Your task to perform on an android device: see sites visited before in the chrome app Image 0: 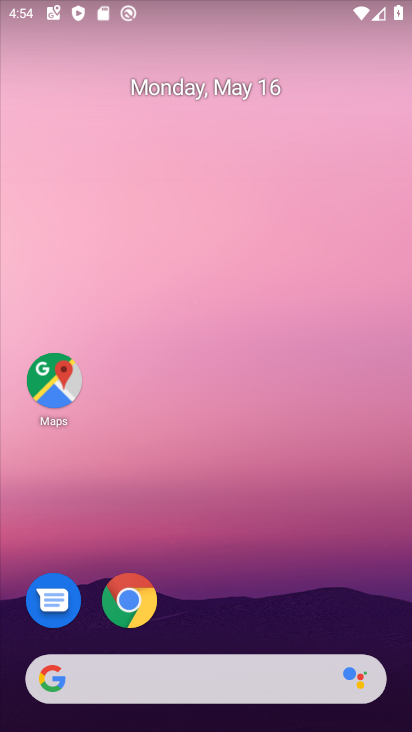
Step 0: drag from (222, 636) to (197, 45)
Your task to perform on an android device: see sites visited before in the chrome app Image 1: 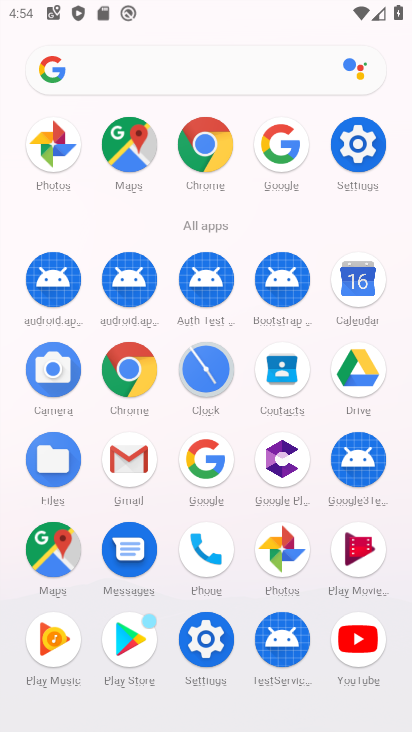
Step 1: click (198, 146)
Your task to perform on an android device: see sites visited before in the chrome app Image 2: 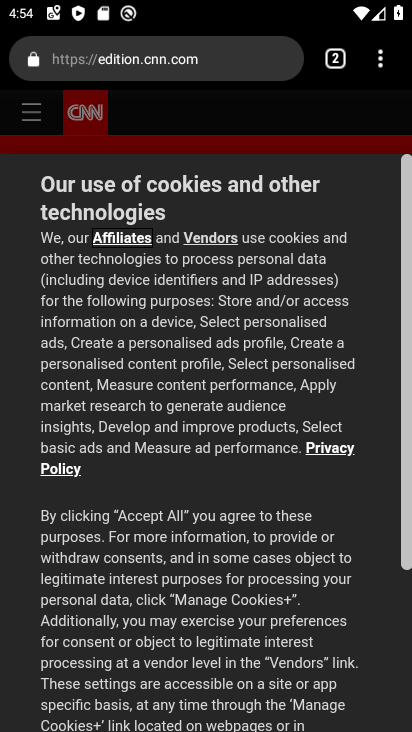
Step 2: click (387, 62)
Your task to perform on an android device: see sites visited before in the chrome app Image 3: 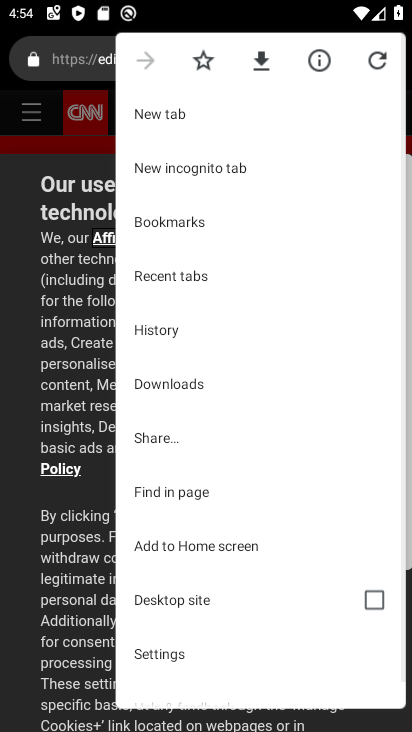
Step 3: click (173, 324)
Your task to perform on an android device: see sites visited before in the chrome app Image 4: 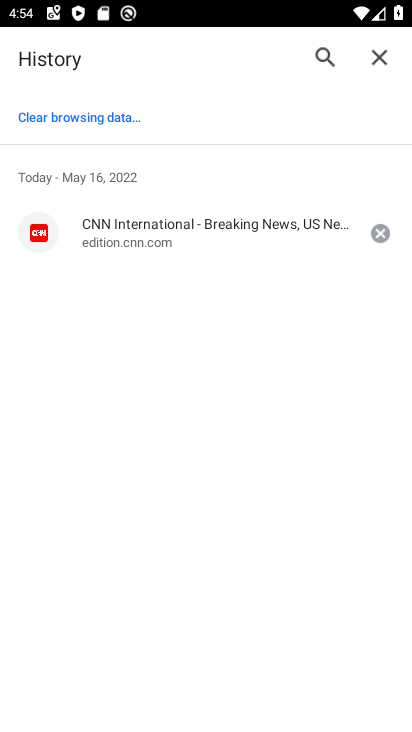
Step 4: task complete